Your task to perform on an android device: open chrome and create a bookmark for the current page Image 0: 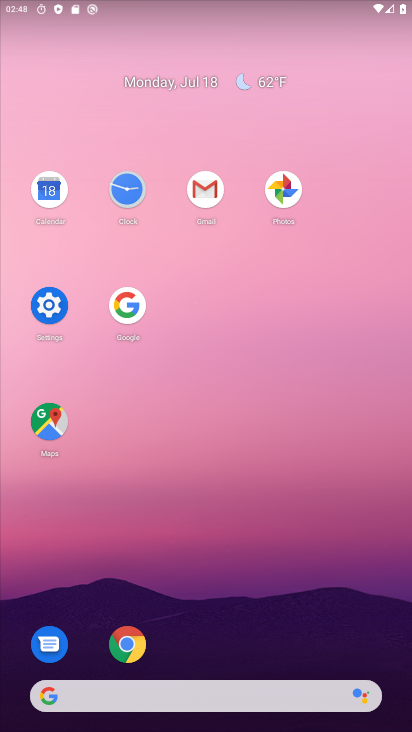
Step 0: click (137, 643)
Your task to perform on an android device: open chrome and create a bookmark for the current page Image 1: 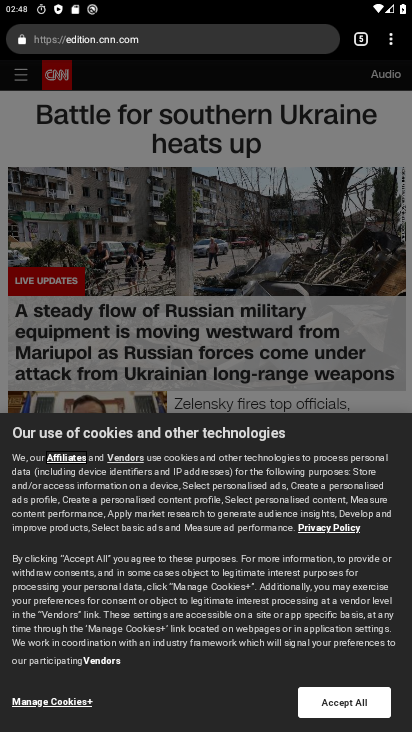
Step 1: click (395, 41)
Your task to perform on an android device: open chrome and create a bookmark for the current page Image 2: 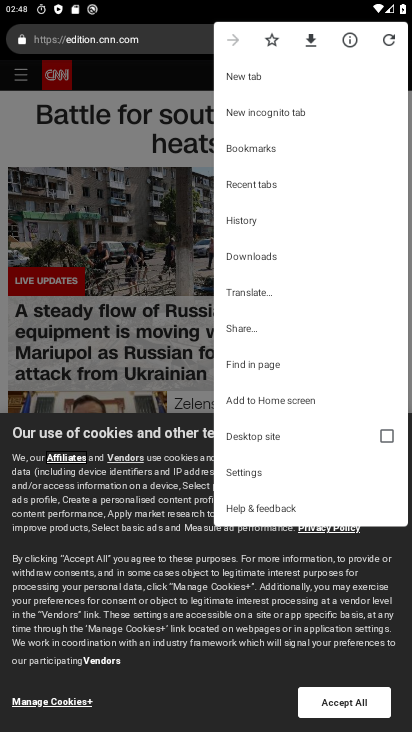
Step 2: click (271, 45)
Your task to perform on an android device: open chrome and create a bookmark for the current page Image 3: 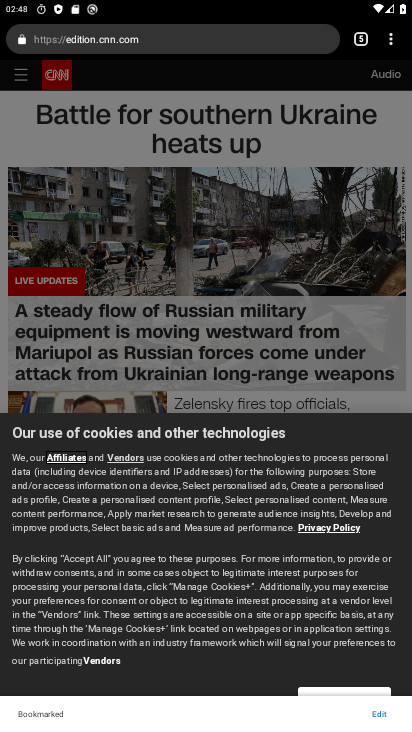
Step 3: task complete